Your task to perform on an android device: move an email to a new category in the gmail app Image 0: 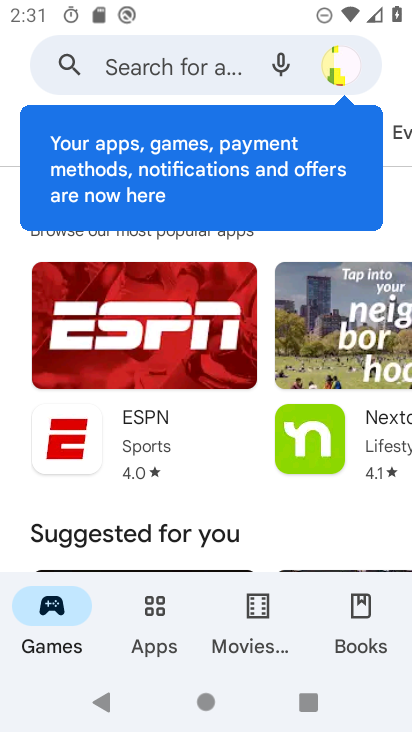
Step 0: press home button
Your task to perform on an android device: move an email to a new category in the gmail app Image 1: 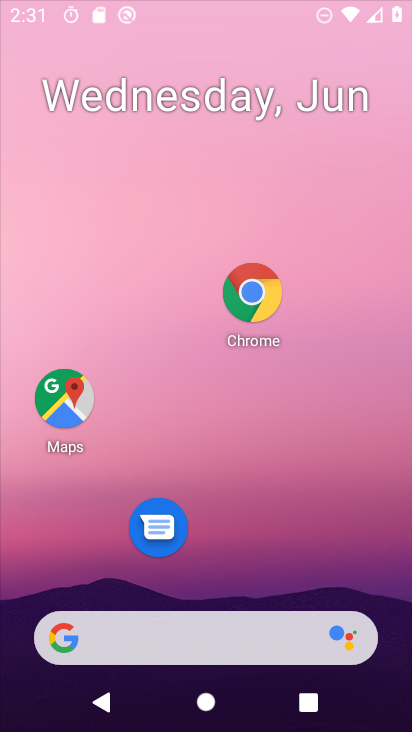
Step 1: click (244, 245)
Your task to perform on an android device: move an email to a new category in the gmail app Image 2: 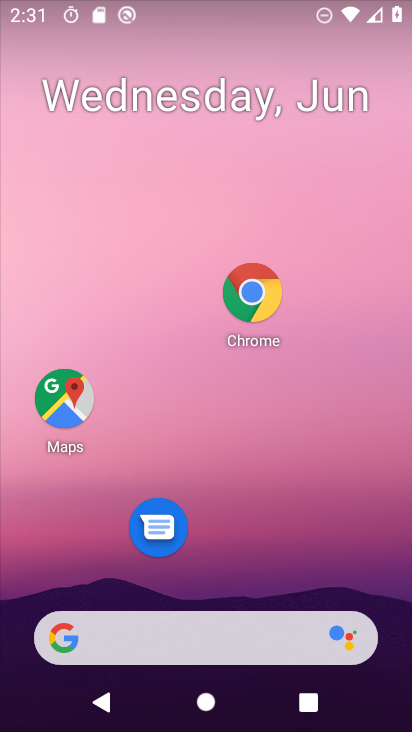
Step 2: drag from (199, 580) to (185, 68)
Your task to perform on an android device: move an email to a new category in the gmail app Image 3: 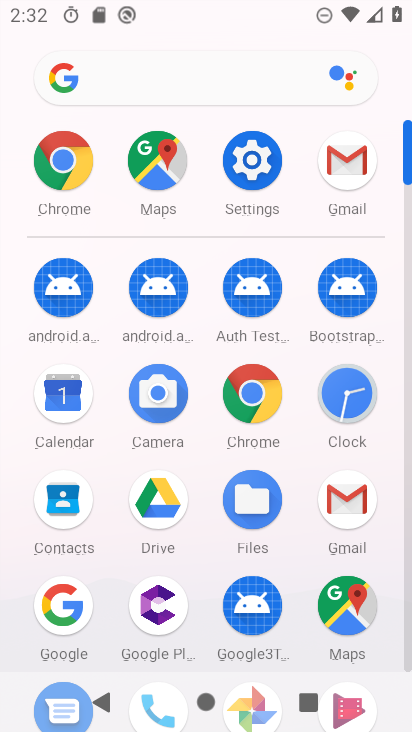
Step 3: click (355, 517)
Your task to perform on an android device: move an email to a new category in the gmail app Image 4: 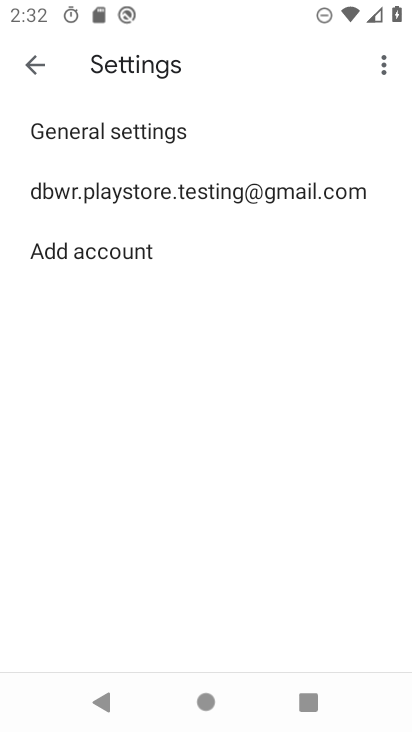
Step 4: click (38, 68)
Your task to perform on an android device: move an email to a new category in the gmail app Image 5: 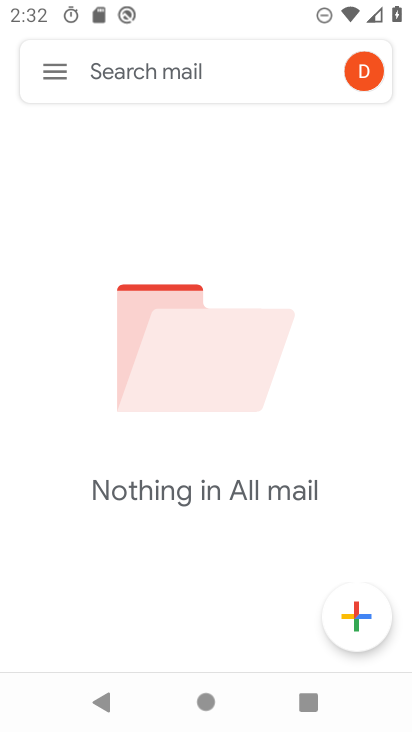
Step 5: click (56, 72)
Your task to perform on an android device: move an email to a new category in the gmail app Image 6: 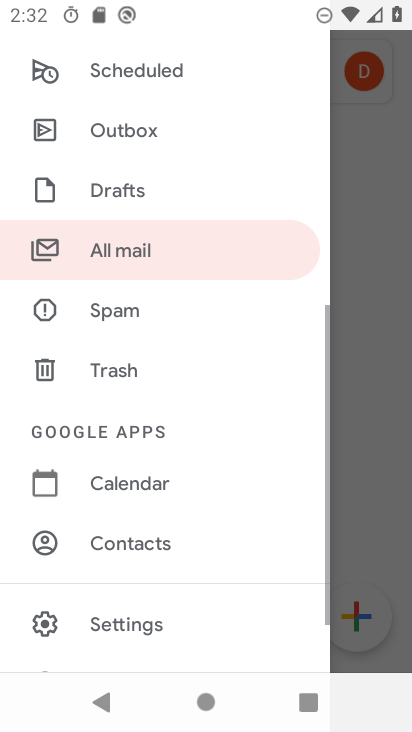
Step 6: task complete